Your task to perform on an android device: uninstall "Microsoft Authenticator" Image 0: 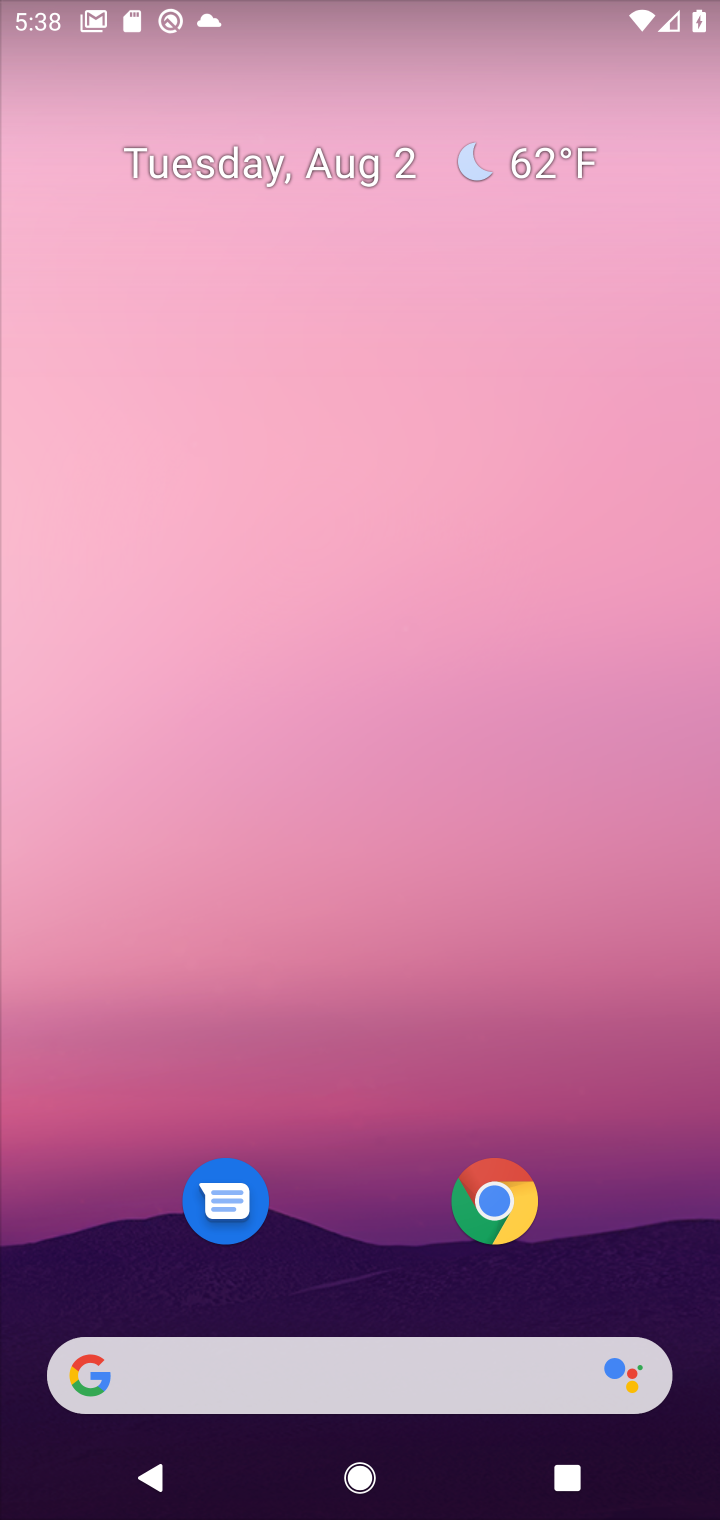
Step 0: drag from (411, 74) to (482, 1160)
Your task to perform on an android device: uninstall "Microsoft Authenticator" Image 1: 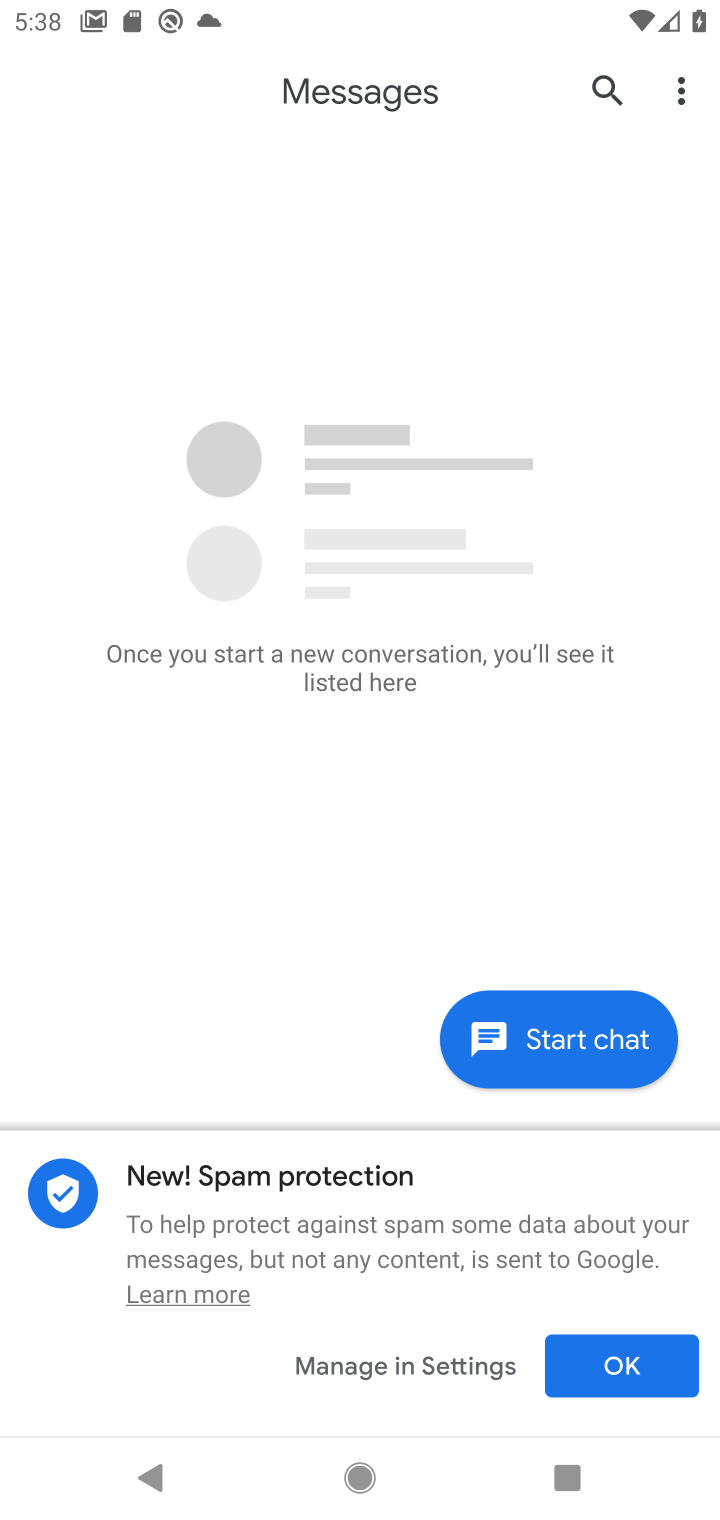
Step 1: press home button
Your task to perform on an android device: uninstall "Microsoft Authenticator" Image 2: 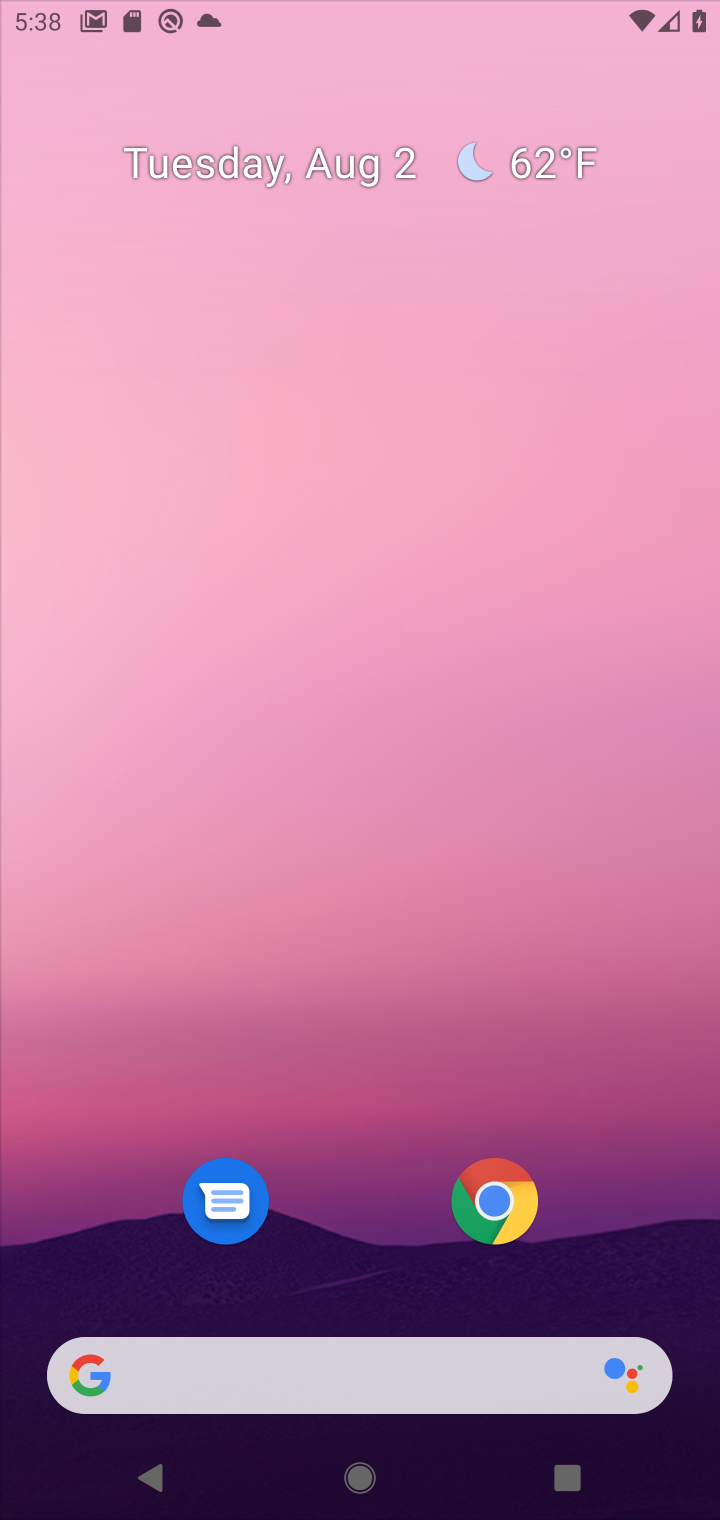
Step 2: drag from (250, 358) to (59, 437)
Your task to perform on an android device: uninstall "Microsoft Authenticator" Image 3: 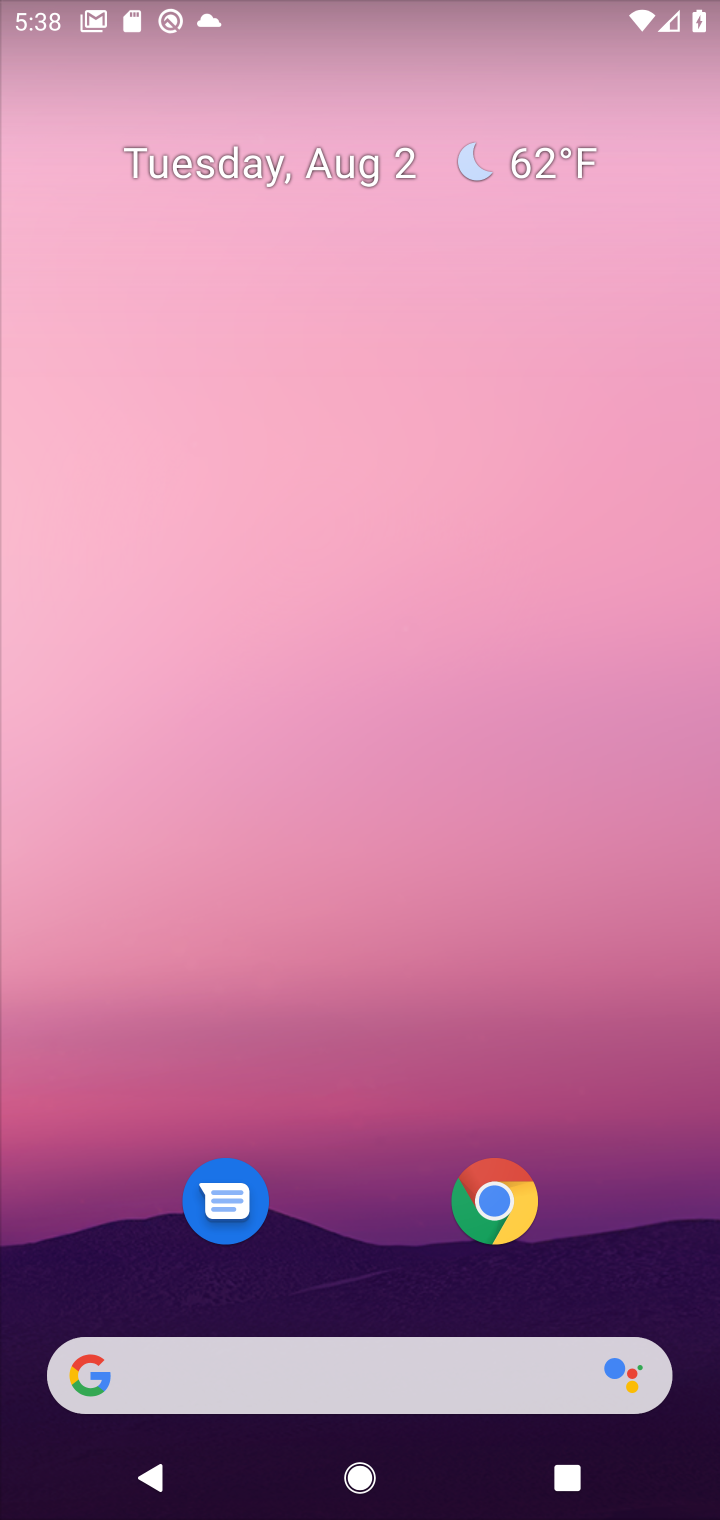
Step 3: drag from (299, 1237) to (363, 2)
Your task to perform on an android device: uninstall "Microsoft Authenticator" Image 4: 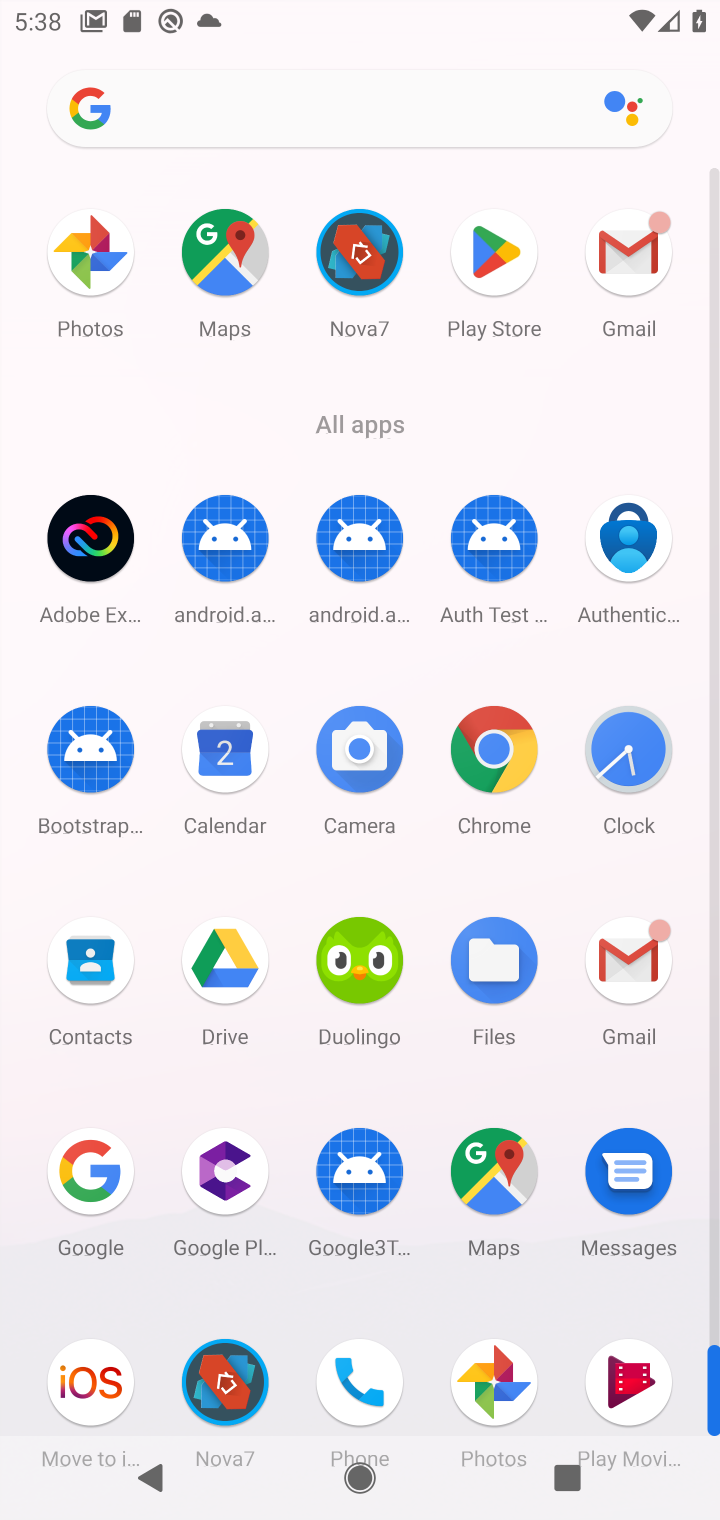
Step 4: drag from (317, 1228) to (366, 358)
Your task to perform on an android device: uninstall "Microsoft Authenticator" Image 5: 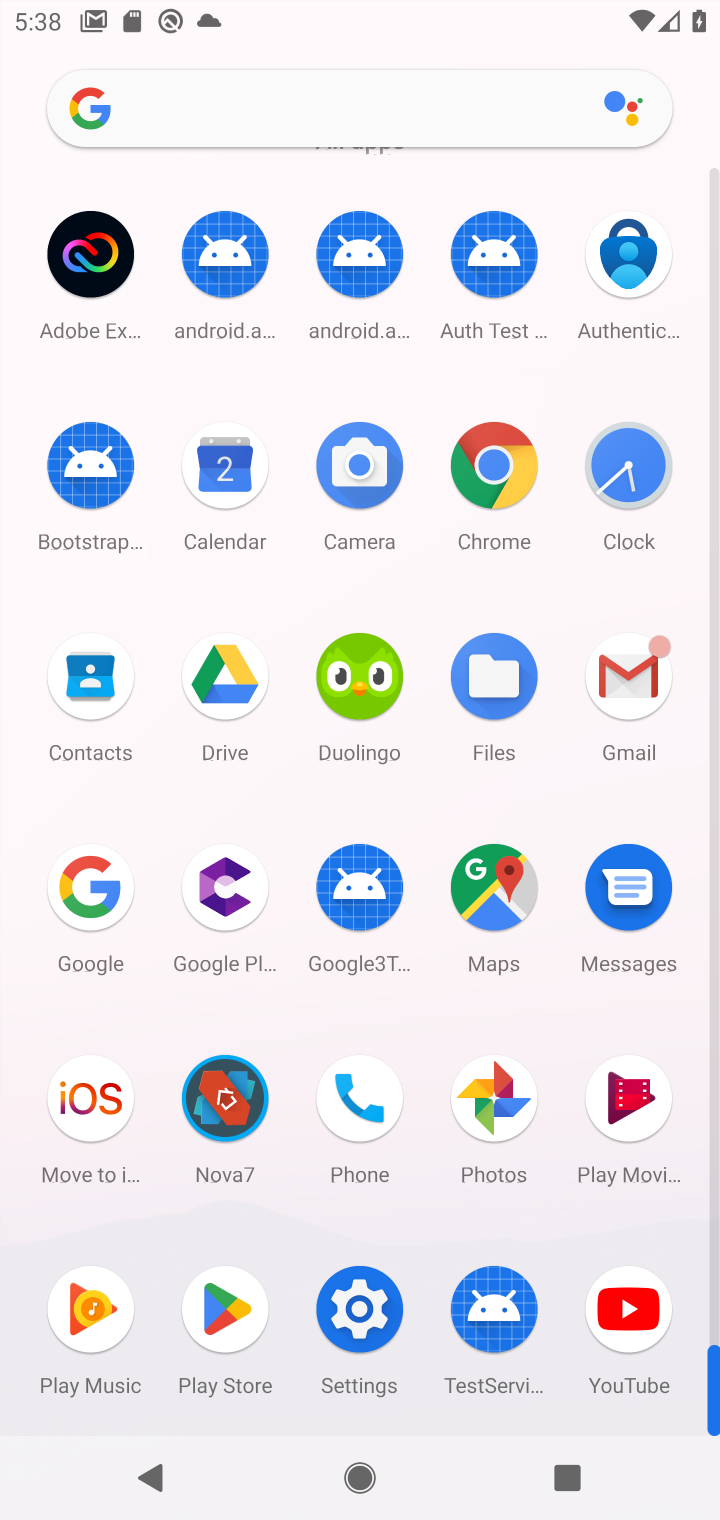
Step 5: click (212, 1314)
Your task to perform on an android device: uninstall "Microsoft Authenticator" Image 6: 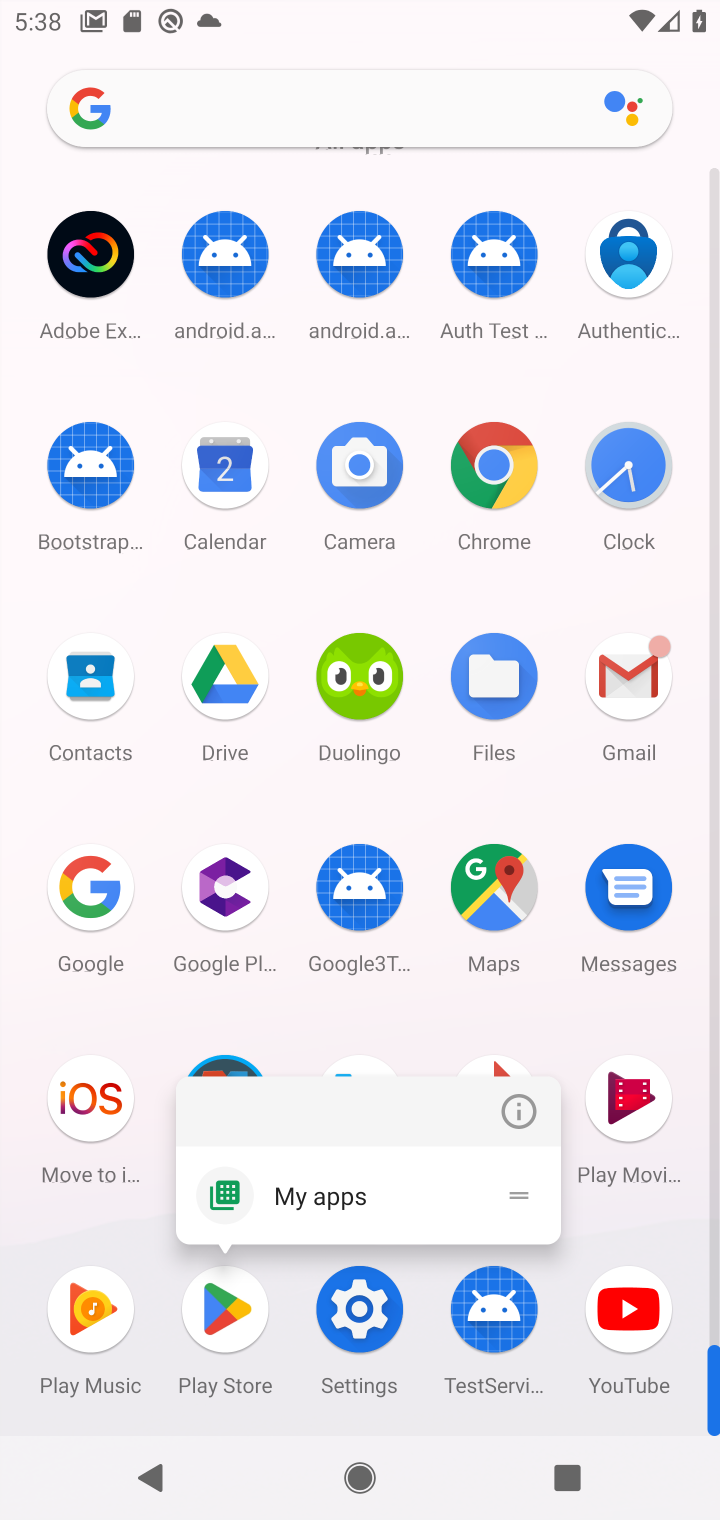
Step 6: click (522, 1104)
Your task to perform on an android device: uninstall "Microsoft Authenticator" Image 7: 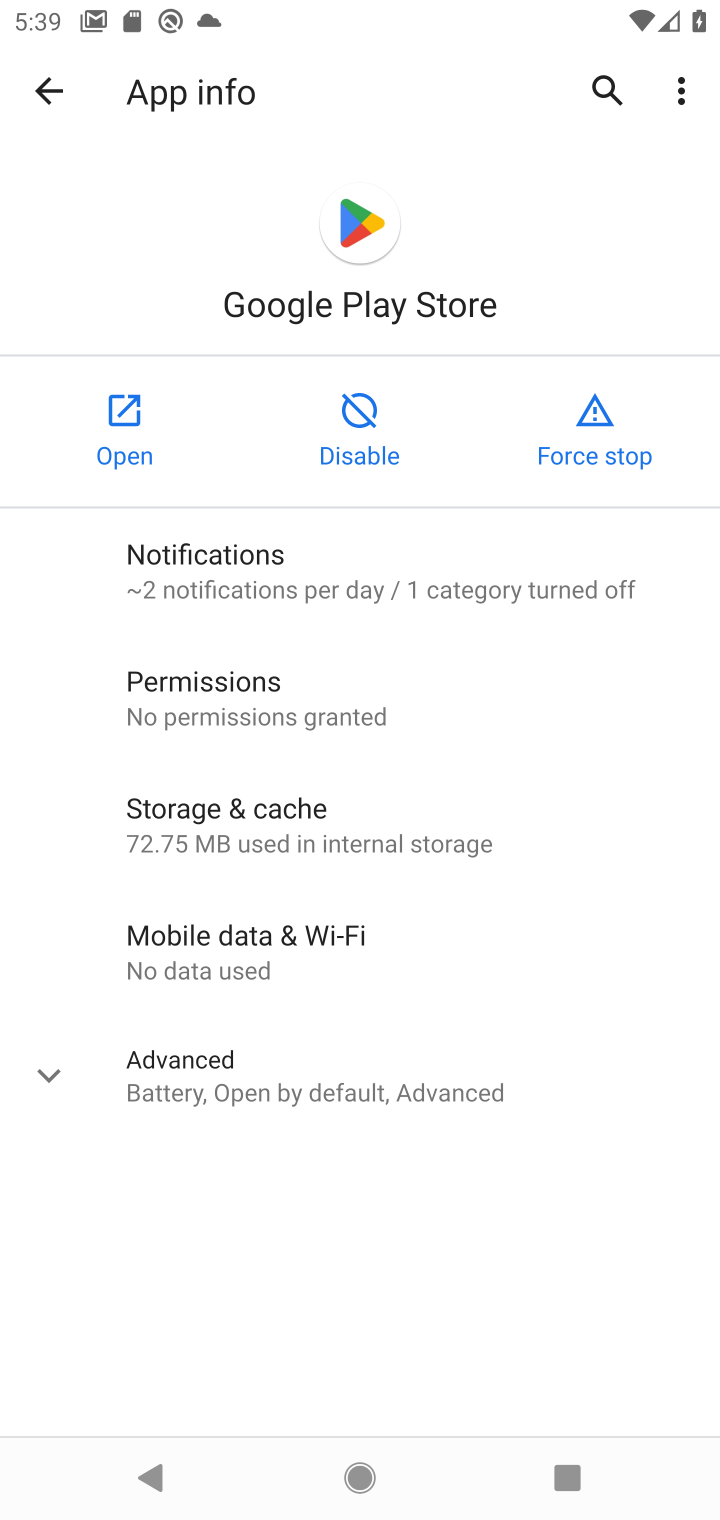
Step 7: click (118, 432)
Your task to perform on an android device: uninstall "Microsoft Authenticator" Image 8: 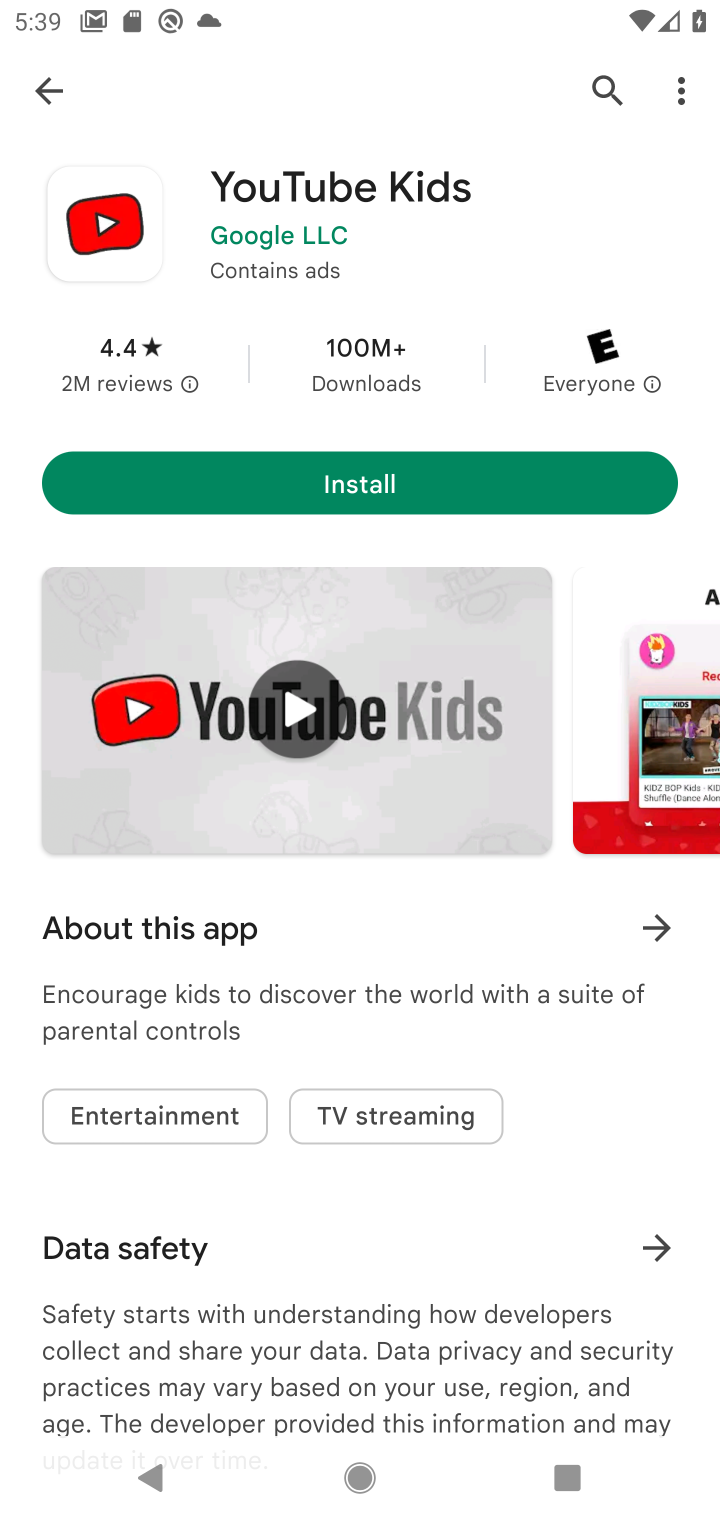
Step 8: click (608, 95)
Your task to perform on an android device: uninstall "Microsoft Authenticator" Image 9: 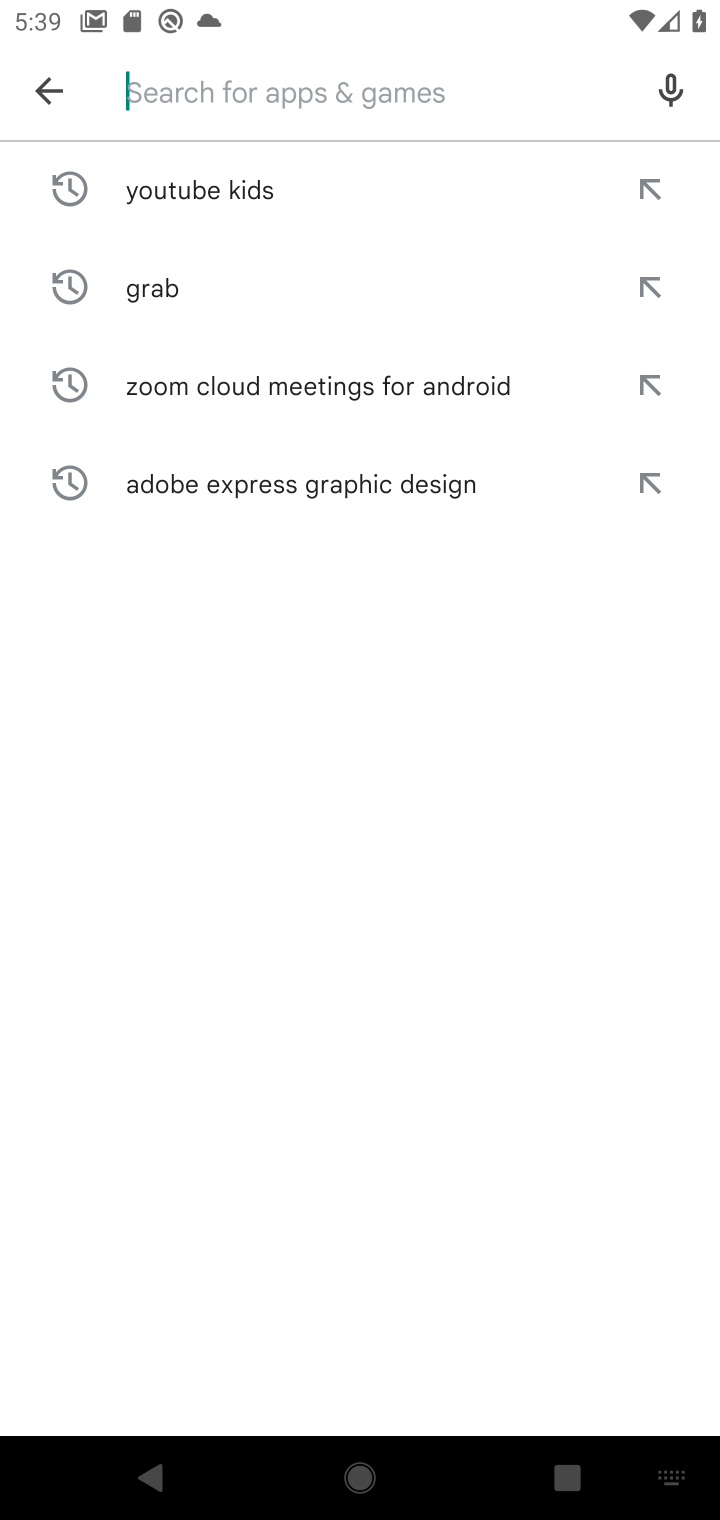
Step 9: type "Microsoft Authenticator"
Your task to perform on an android device: uninstall "Microsoft Authenticator" Image 10: 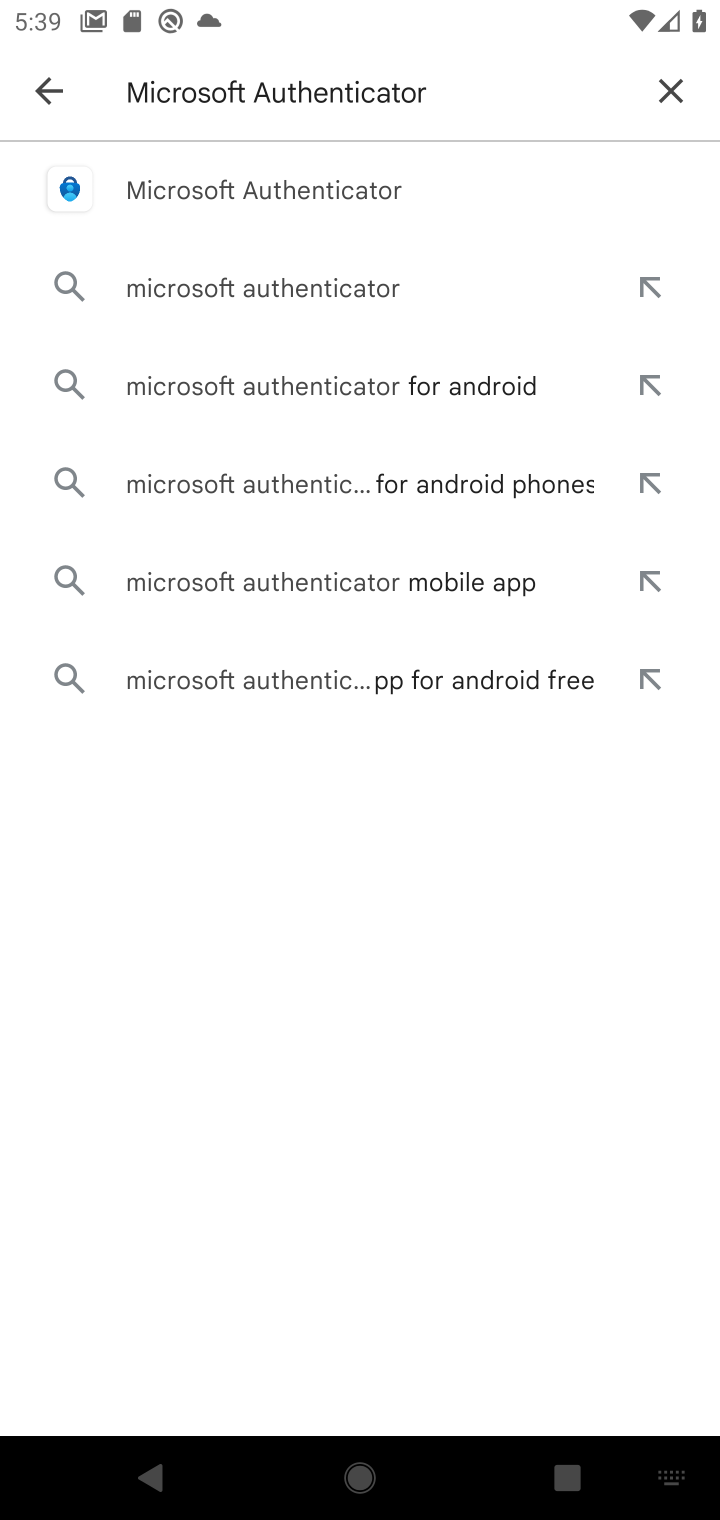
Step 10: click (190, 177)
Your task to perform on an android device: uninstall "Microsoft Authenticator" Image 11: 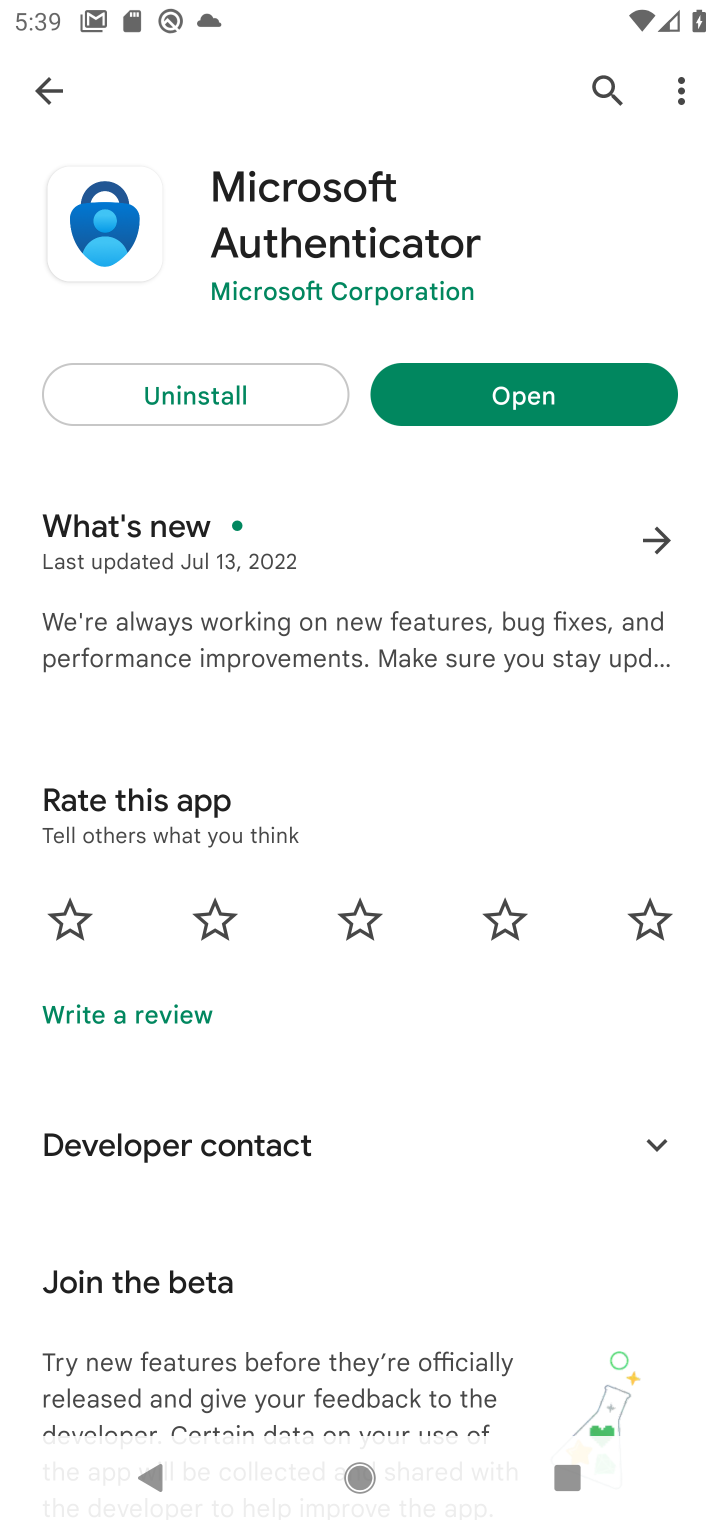
Step 11: drag from (357, 314) to (468, 936)
Your task to perform on an android device: uninstall "Microsoft Authenticator" Image 12: 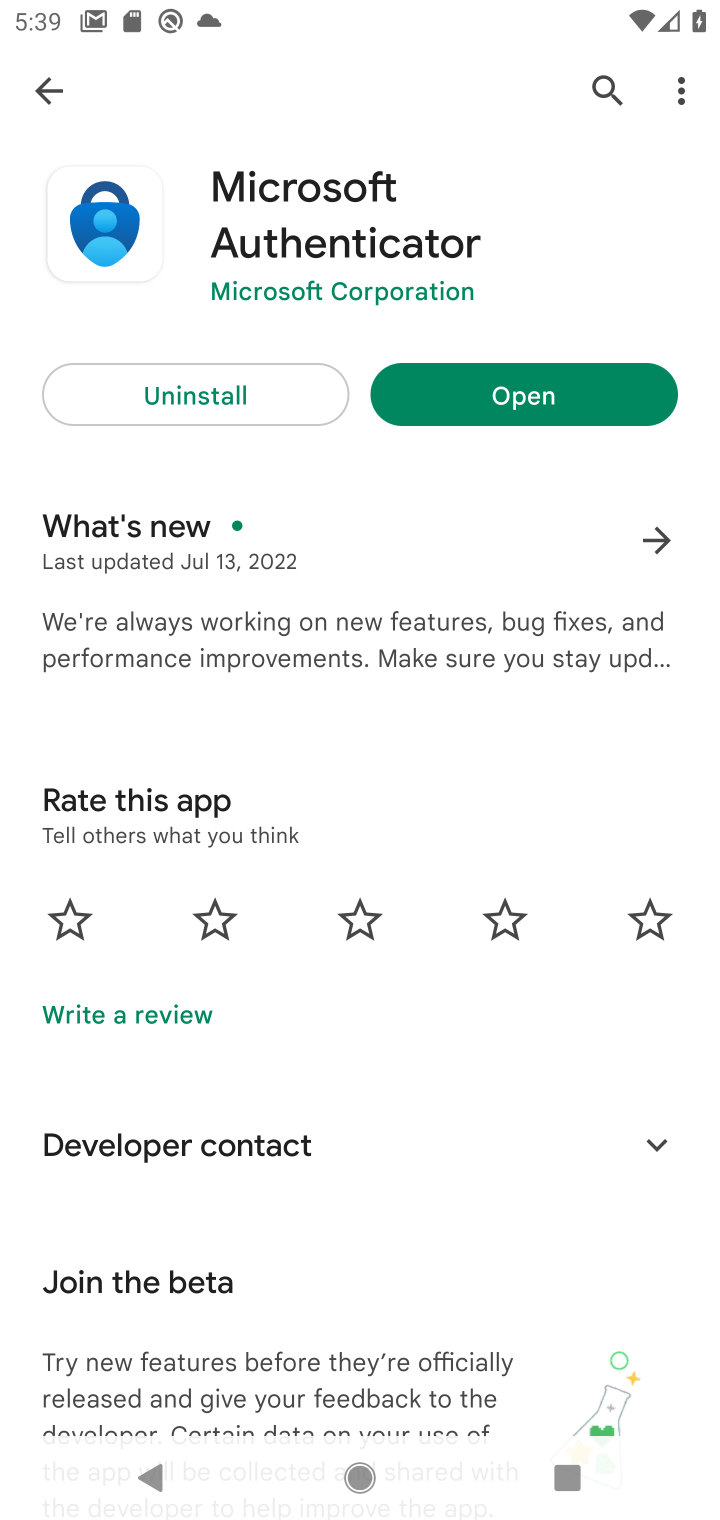
Step 12: click (217, 384)
Your task to perform on an android device: uninstall "Microsoft Authenticator" Image 13: 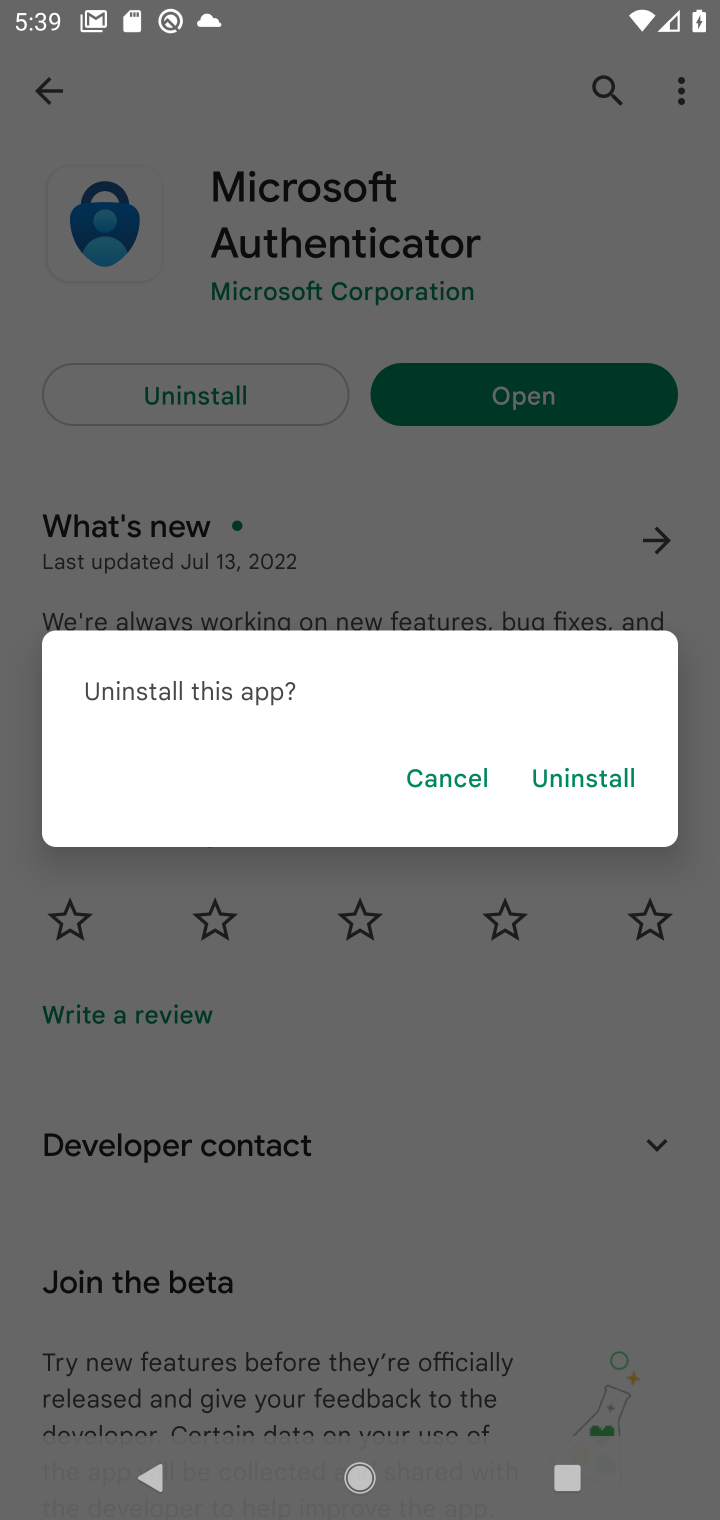
Step 13: click (617, 759)
Your task to perform on an android device: uninstall "Microsoft Authenticator" Image 14: 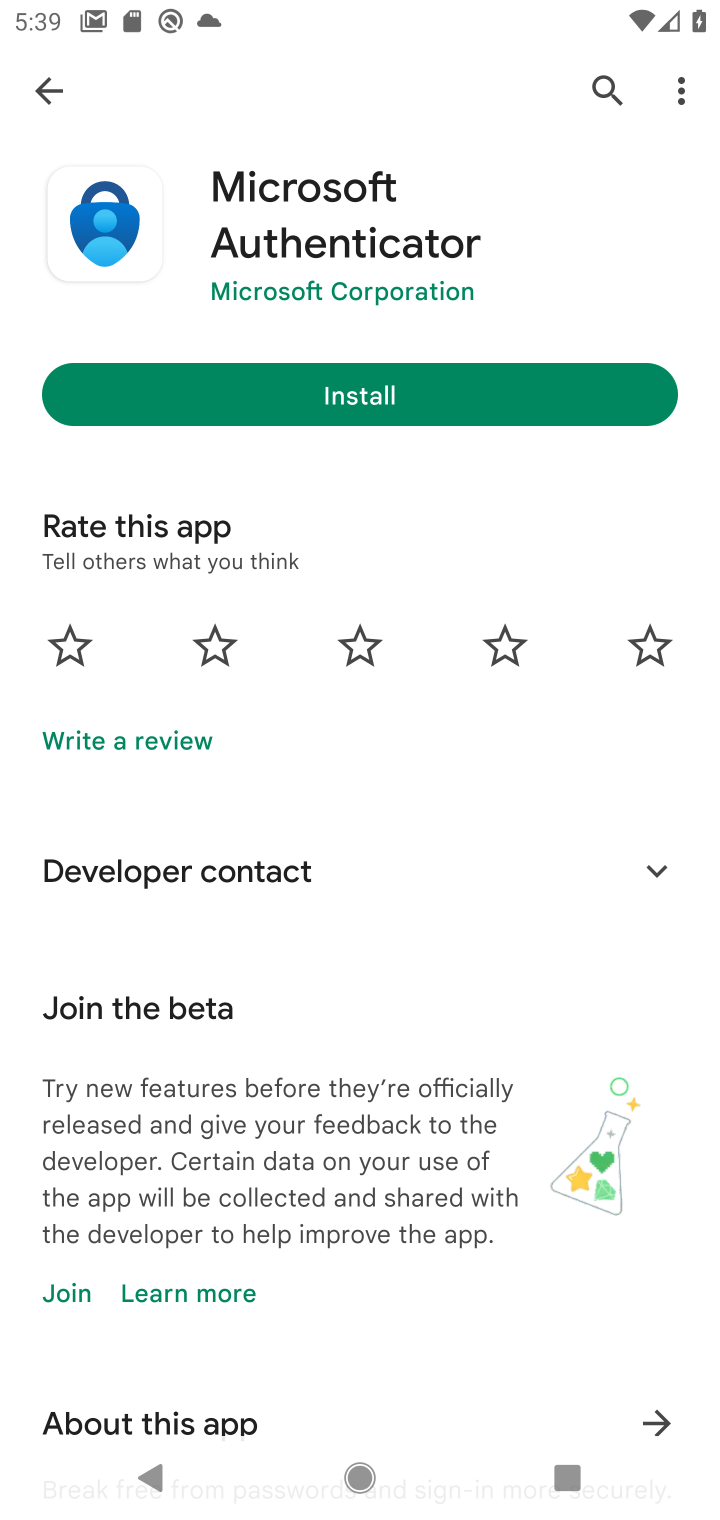
Step 14: task complete